Your task to perform on an android device: Open Reddit.com Image 0: 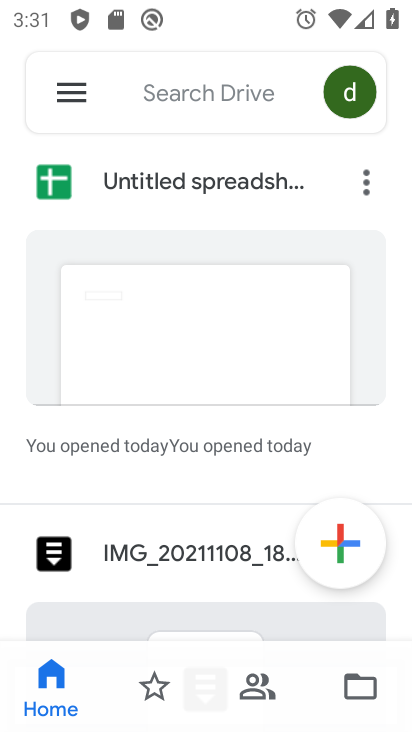
Step 0: press home button
Your task to perform on an android device: Open Reddit.com Image 1: 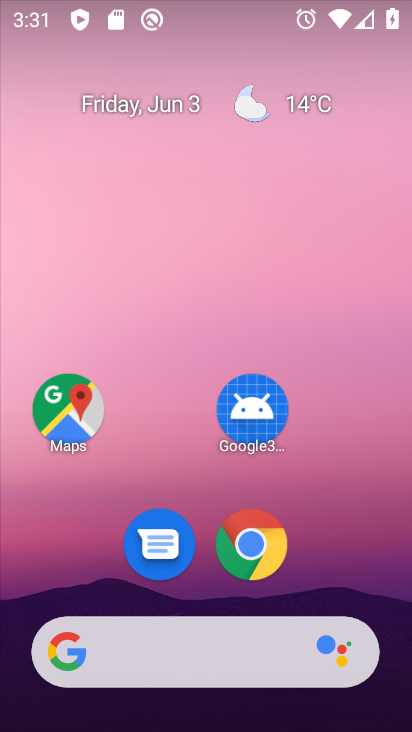
Step 1: click (175, 658)
Your task to perform on an android device: Open Reddit.com Image 2: 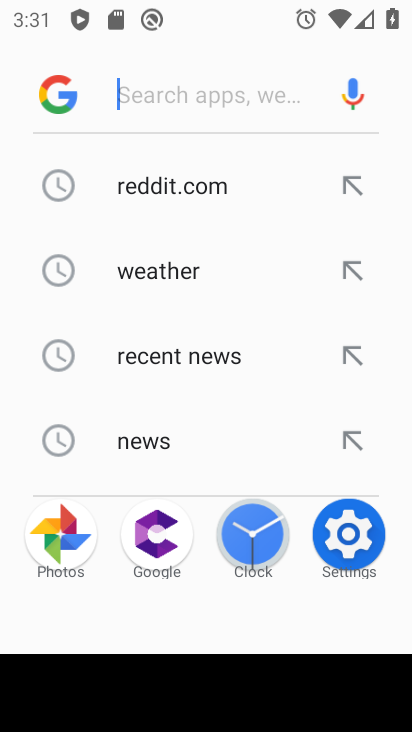
Step 2: type "reddit.com"
Your task to perform on an android device: Open Reddit.com Image 3: 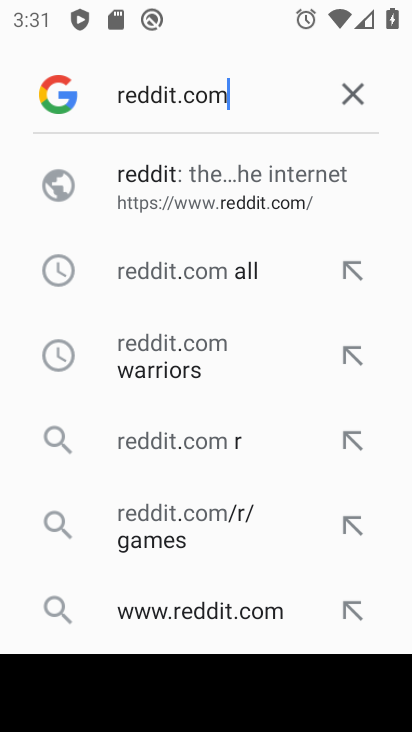
Step 3: click (210, 179)
Your task to perform on an android device: Open Reddit.com Image 4: 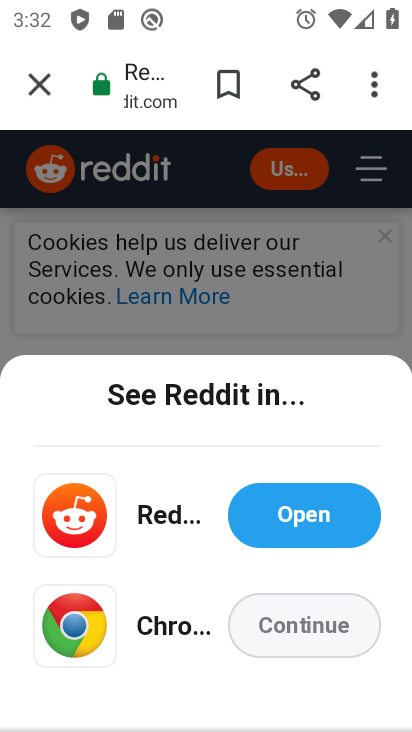
Step 4: task complete